Your task to perform on an android device: Search for pizza restaurants on Maps Image 0: 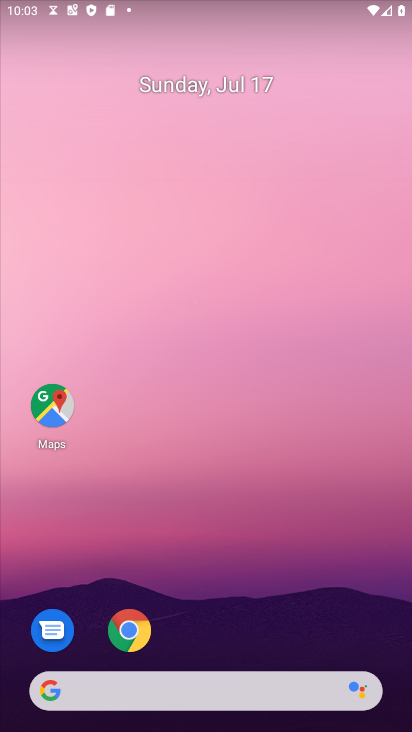
Step 0: drag from (187, 691) to (126, 25)
Your task to perform on an android device: Search for pizza restaurants on Maps Image 1: 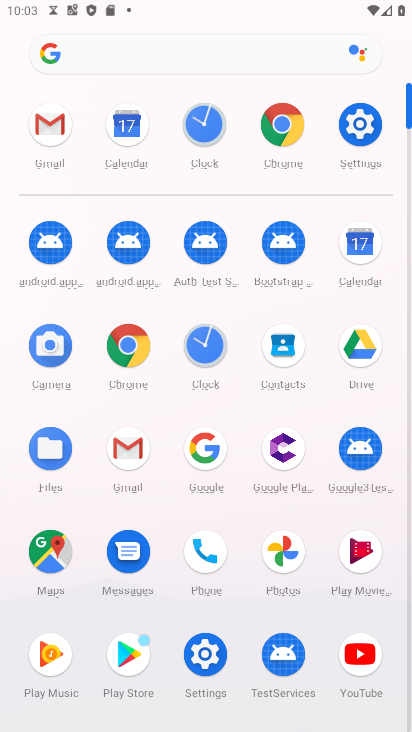
Step 1: click (65, 549)
Your task to perform on an android device: Search for pizza restaurants on Maps Image 2: 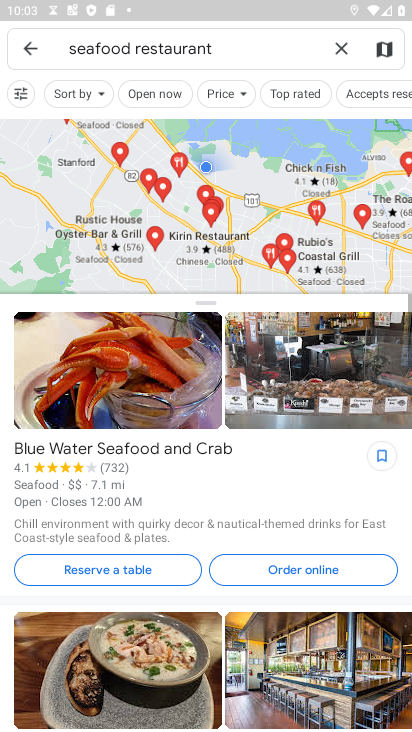
Step 2: click (336, 46)
Your task to perform on an android device: Search for pizza restaurants on Maps Image 3: 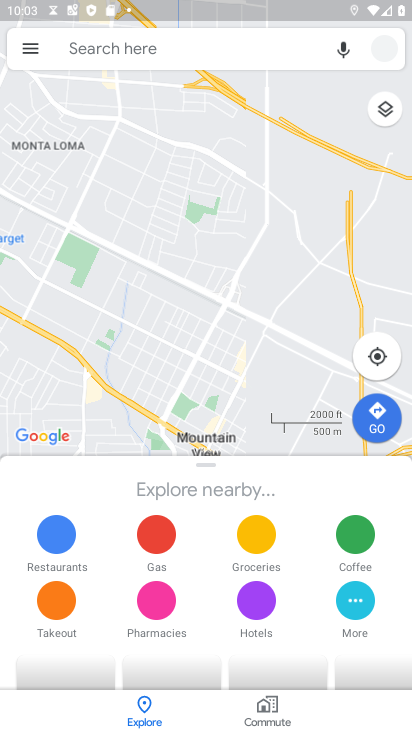
Step 3: click (155, 50)
Your task to perform on an android device: Search for pizza restaurants on Maps Image 4: 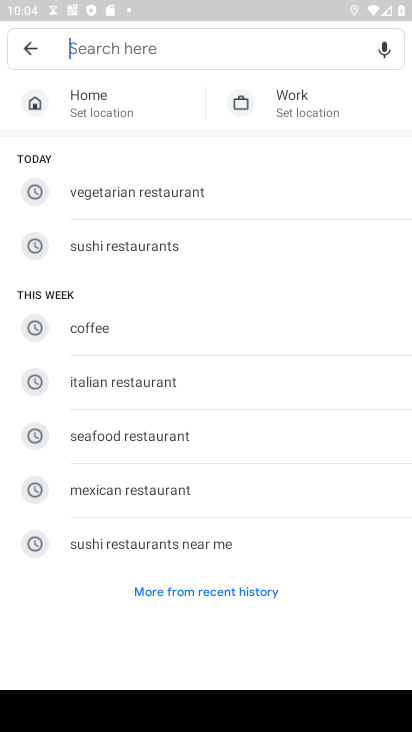
Step 4: type "pizza restaurant"
Your task to perform on an android device: Search for pizza restaurants on Maps Image 5: 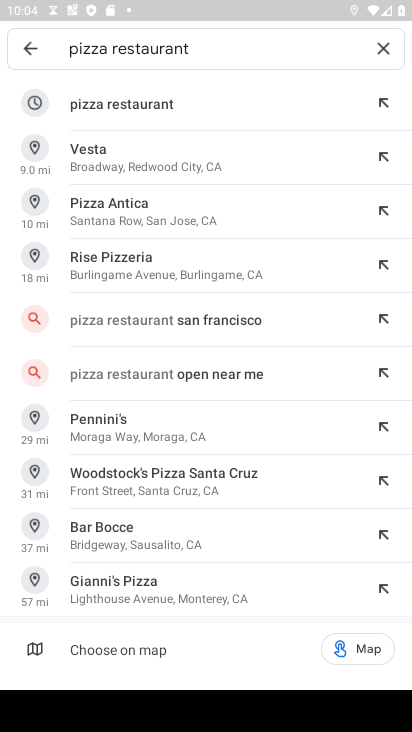
Step 5: click (214, 123)
Your task to perform on an android device: Search for pizza restaurants on Maps Image 6: 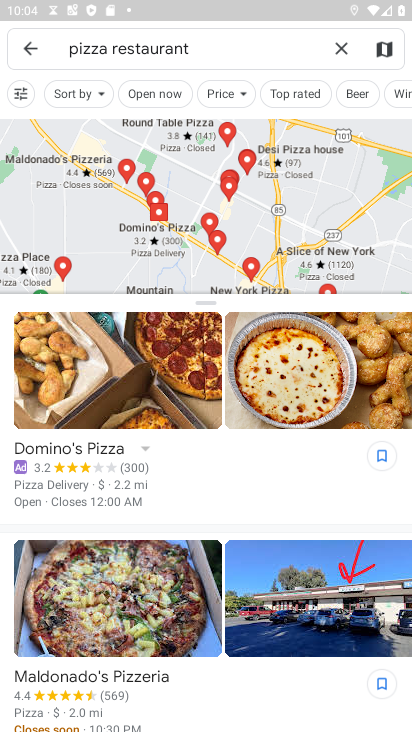
Step 6: task complete